Your task to perform on an android device: Check the news Image 0: 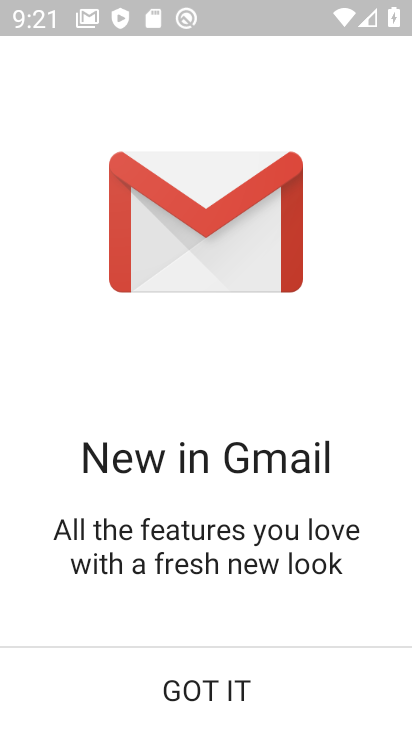
Step 0: press home button
Your task to perform on an android device: Check the news Image 1: 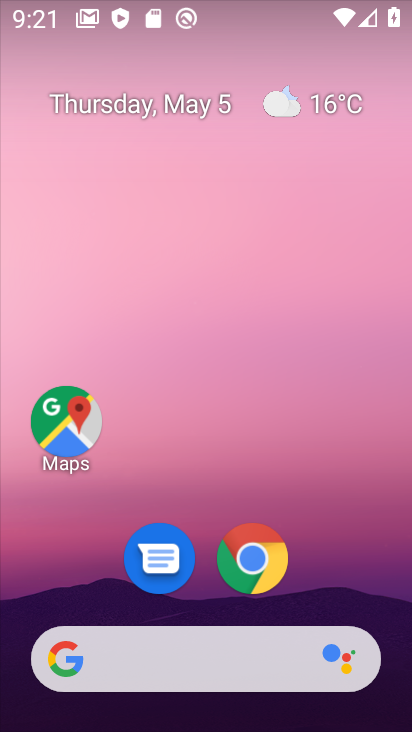
Step 1: click (263, 562)
Your task to perform on an android device: Check the news Image 2: 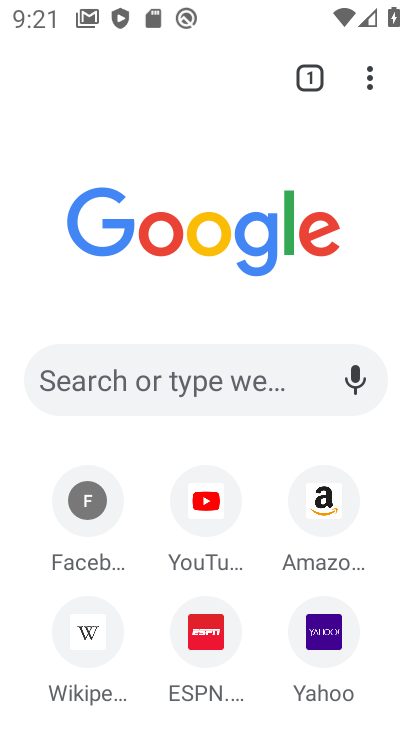
Step 2: click (223, 396)
Your task to perform on an android device: Check the news Image 3: 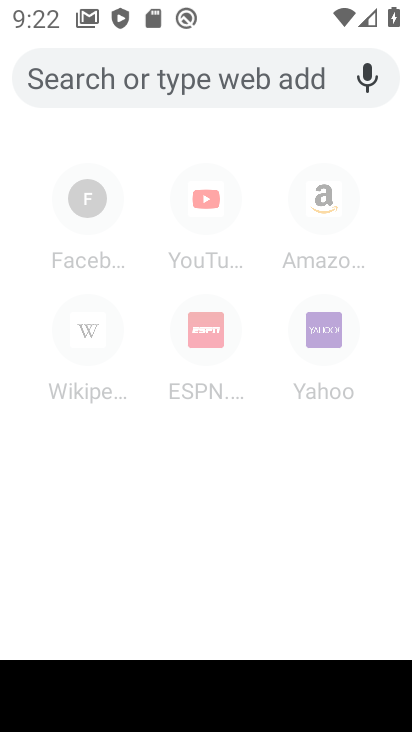
Step 3: type "News"
Your task to perform on an android device: Check the news Image 4: 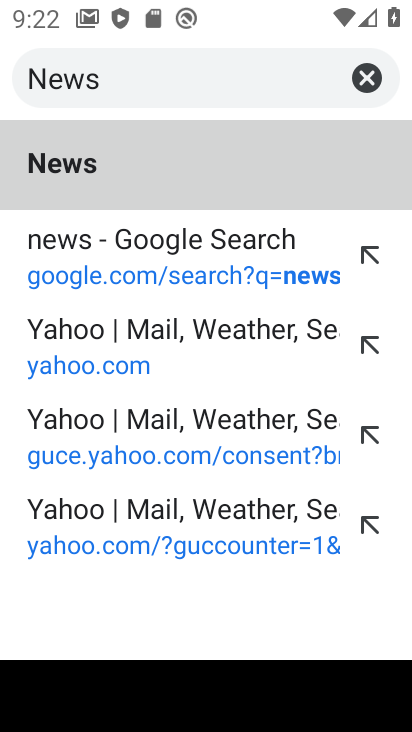
Step 4: click (107, 146)
Your task to perform on an android device: Check the news Image 5: 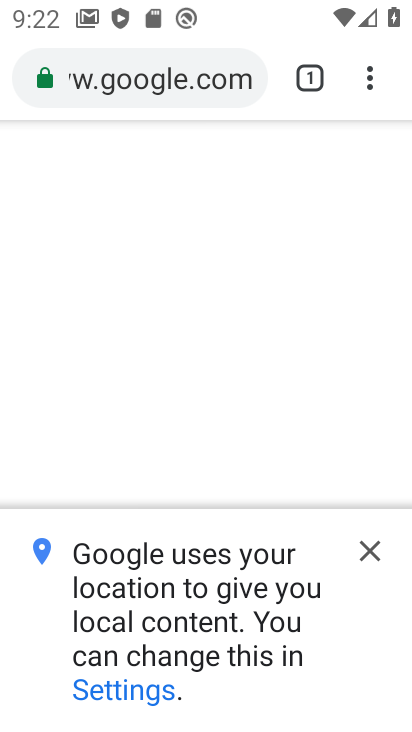
Step 5: click (372, 554)
Your task to perform on an android device: Check the news Image 6: 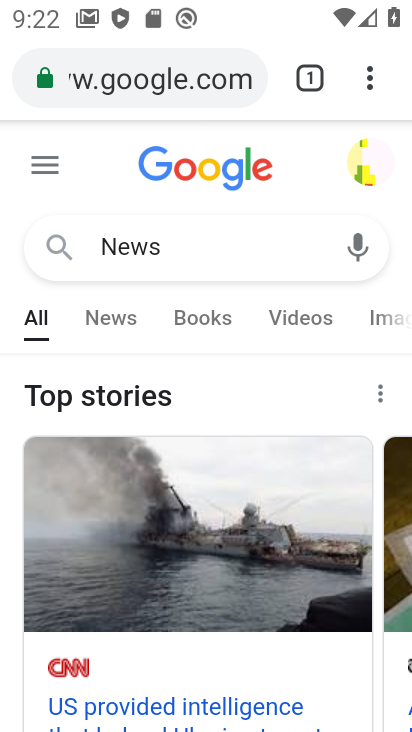
Step 6: task complete